Your task to perform on an android device: star an email in the gmail app Image 0: 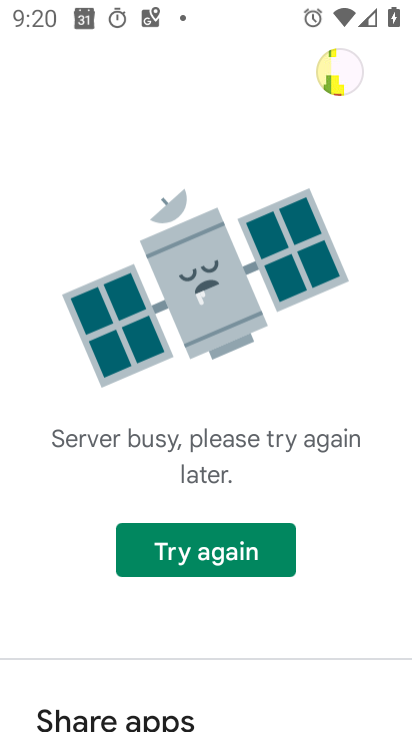
Step 0: press back button
Your task to perform on an android device: star an email in the gmail app Image 1: 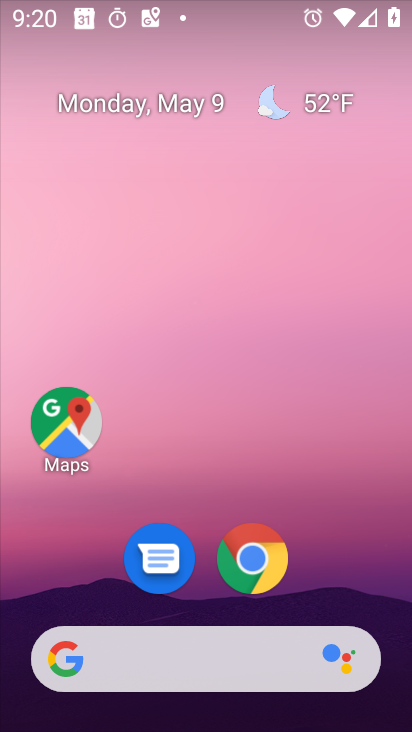
Step 1: drag from (203, 588) to (297, 39)
Your task to perform on an android device: star an email in the gmail app Image 2: 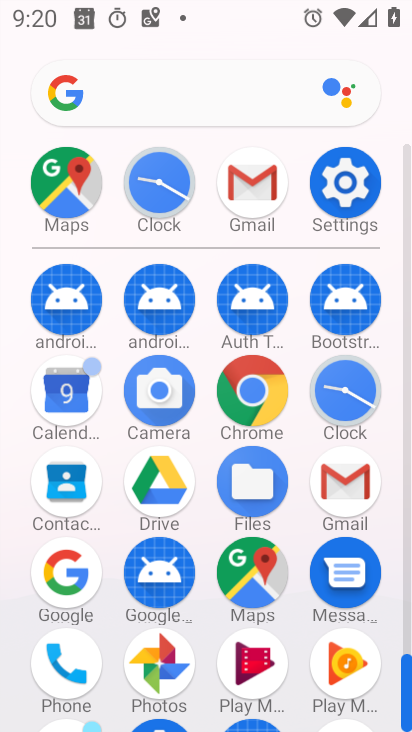
Step 2: click (250, 191)
Your task to perform on an android device: star an email in the gmail app Image 3: 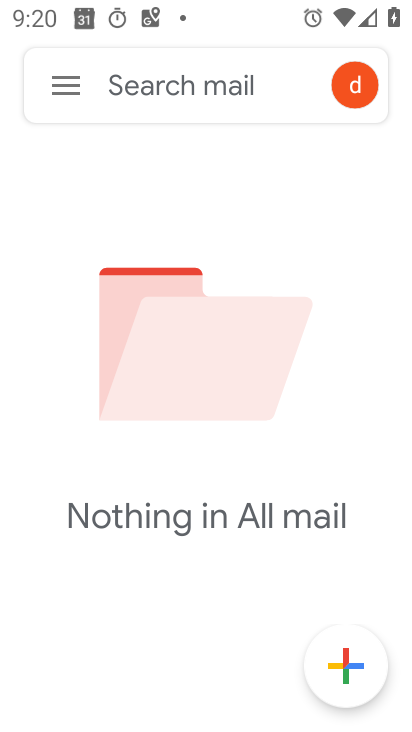
Step 3: click (64, 77)
Your task to perform on an android device: star an email in the gmail app Image 4: 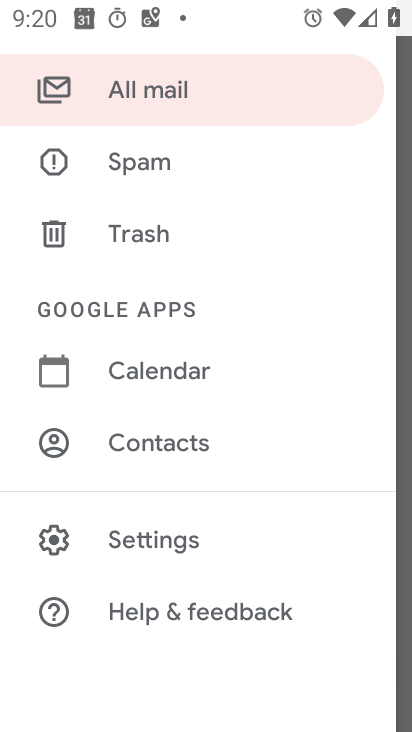
Step 4: drag from (165, 132) to (180, 652)
Your task to perform on an android device: star an email in the gmail app Image 5: 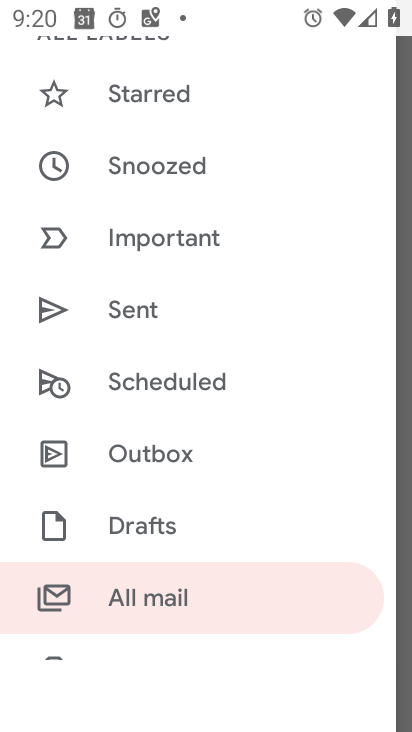
Step 5: drag from (228, 102) to (306, 578)
Your task to perform on an android device: star an email in the gmail app Image 6: 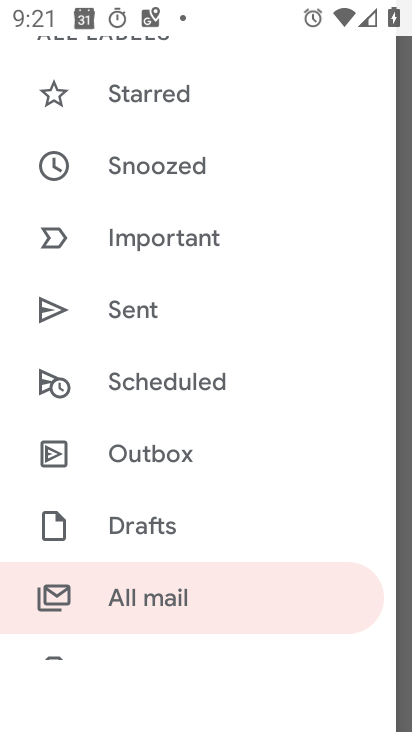
Step 6: click (205, 596)
Your task to perform on an android device: star an email in the gmail app Image 7: 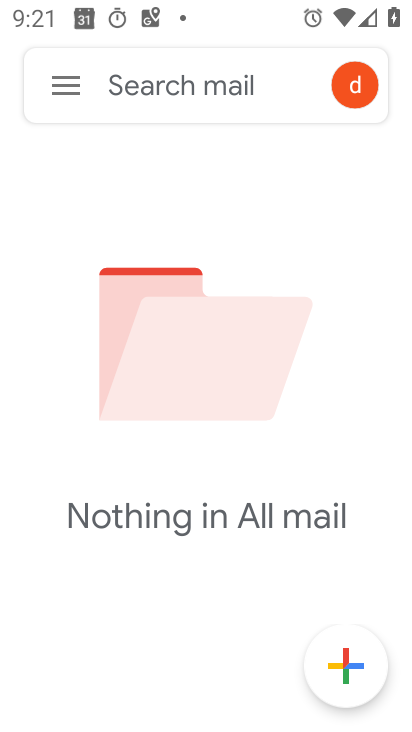
Step 7: task complete